Your task to perform on an android device: turn on data saver in the chrome app Image 0: 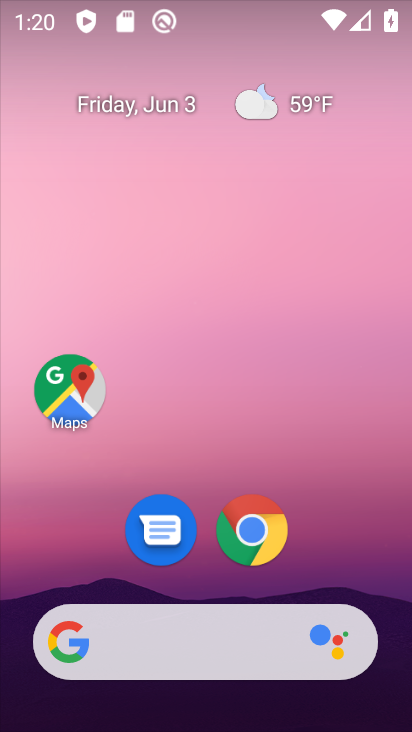
Step 0: click (241, 530)
Your task to perform on an android device: turn on data saver in the chrome app Image 1: 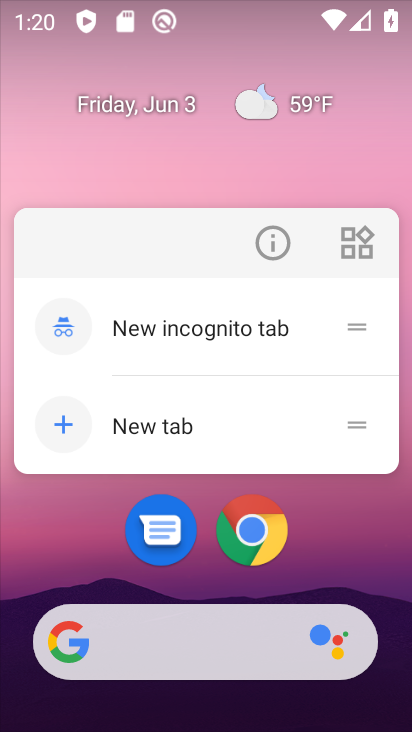
Step 1: click (241, 530)
Your task to perform on an android device: turn on data saver in the chrome app Image 2: 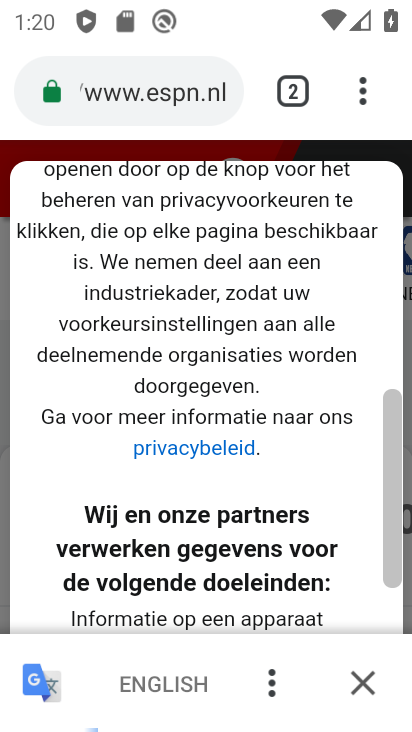
Step 2: click (366, 101)
Your task to perform on an android device: turn on data saver in the chrome app Image 3: 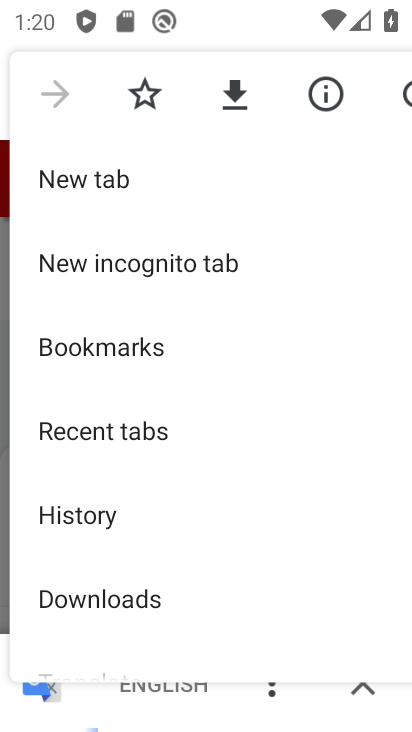
Step 3: drag from (159, 625) to (87, 153)
Your task to perform on an android device: turn on data saver in the chrome app Image 4: 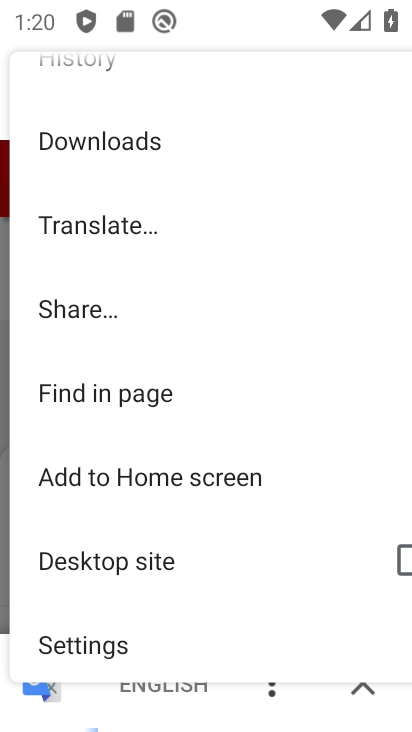
Step 4: click (113, 623)
Your task to perform on an android device: turn on data saver in the chrome app Image 5: 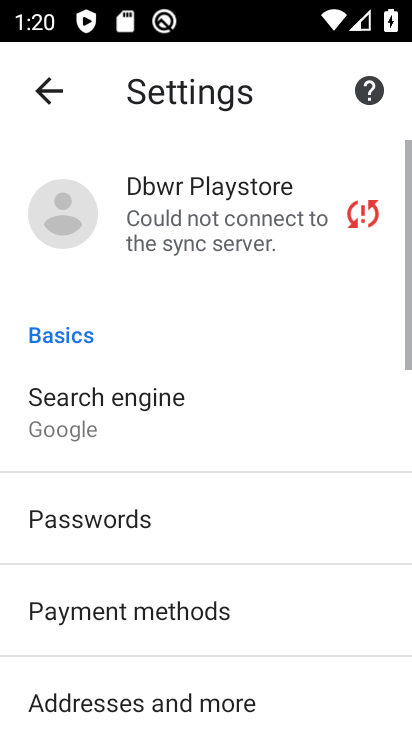
Step 5: drag from (163, 604) to (144, 167)
Your task to perform on an android device: turn on data saver in the chrome app Image 6: 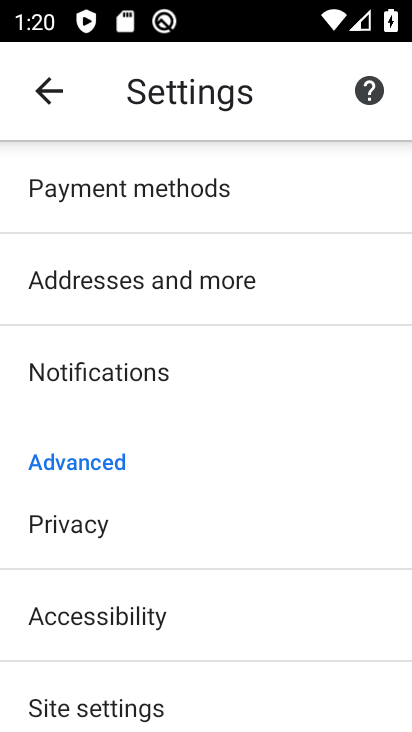
Step 6: drag from (174, 574) to (173, 253)
Your task to perform on an android device: turn on data saver in the chrome app Image 7: 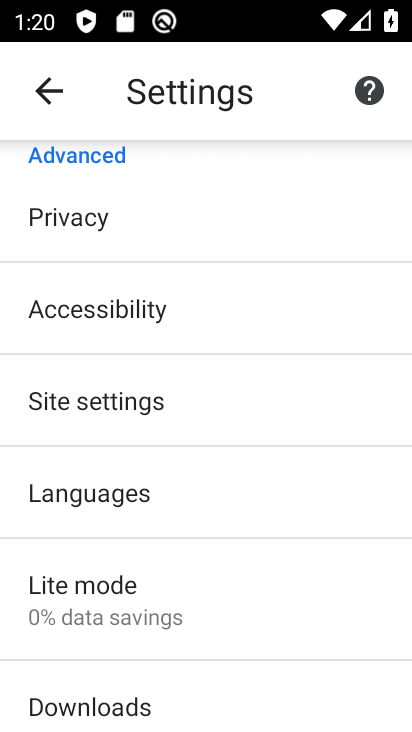
Step 7: click (143, 587)
Your task to perform on an android device: turn on data saver in the chrome app Image 8: 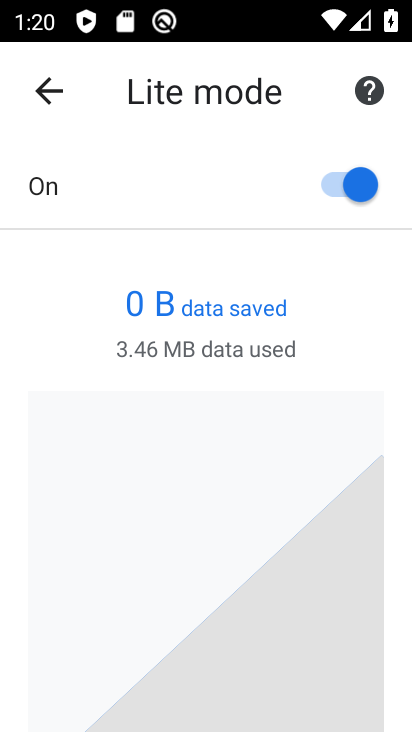
Step 8: task complete